Your task to perform on an android device: Search for seafood restaurants on Google Maps Image 0: 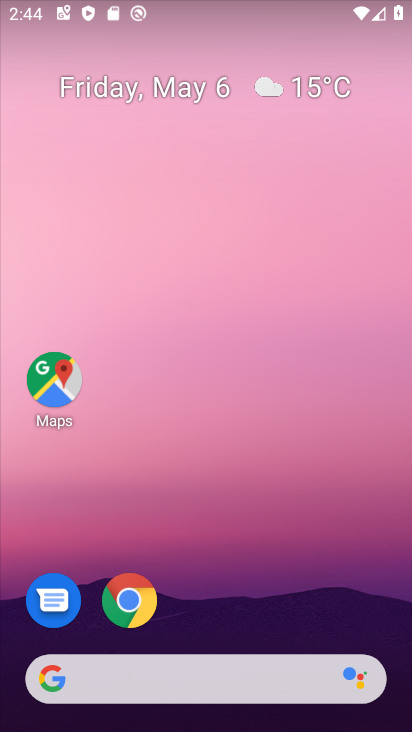
Step 0: drag from (274, 521) to (202, 15)
Your task to perform on an android device: Search for seafood restaurants on Google Maps Image 1: 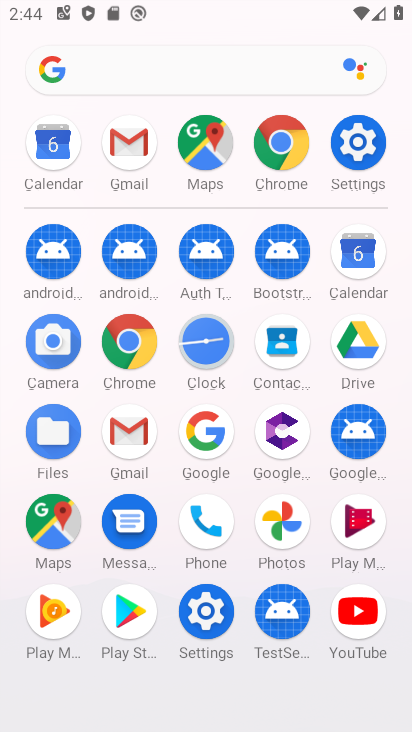
Step 1: drag from (5, 620) to (5, 249)
Your task to perform on an android device: Search for seafood restaurants on Google Maps Image 2: 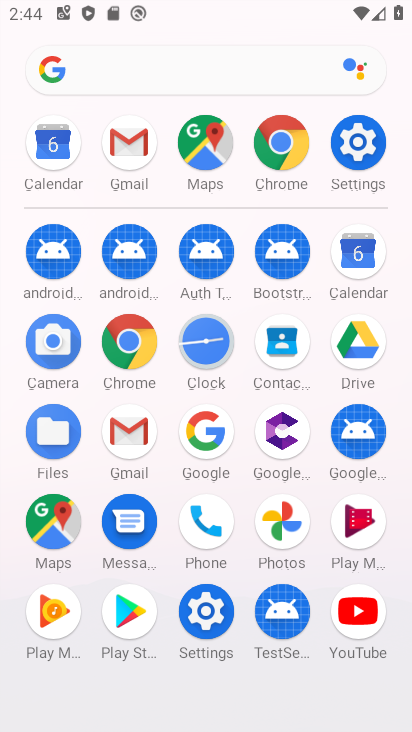
Step 2: click (49, 517)
Your task to perform on an android device: Search for seafood restaurants on Google Maps Image 3: 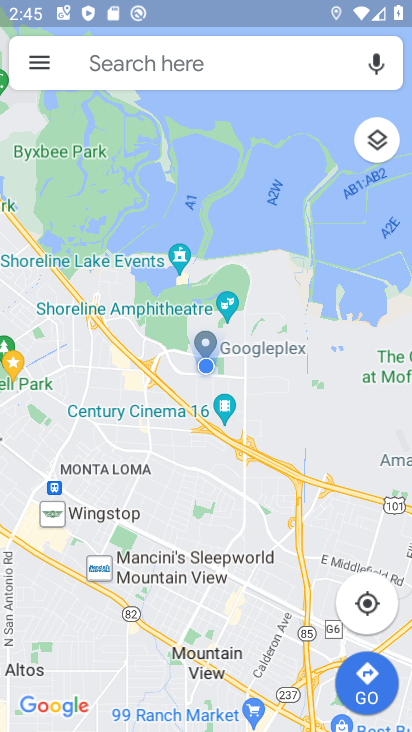
Step 3: click (214, 50)
Your task to perform on an android device: Search for seafood restaurants on Google Maps Image 4: 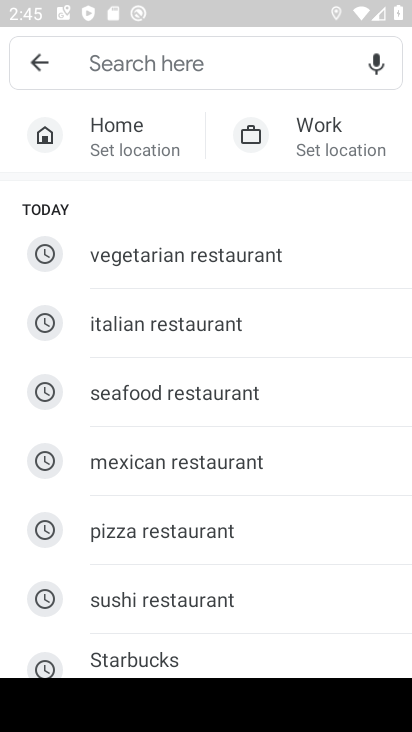
Step 4: type "seafood restaurants "
Your task to perform on an android device: Search for seafood restaurants on Google Maps Image 5: 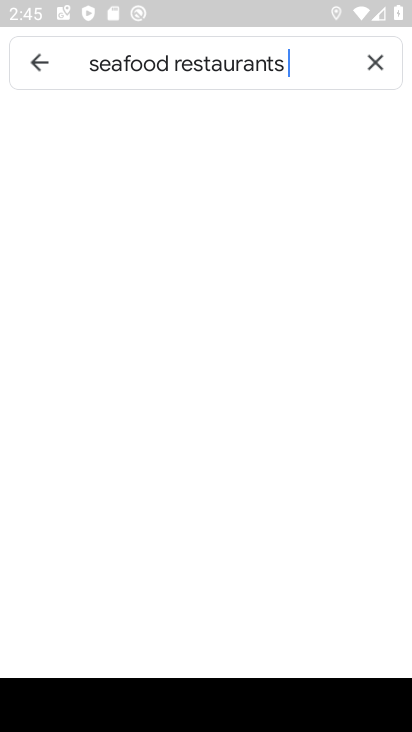
Step 5: type ""
Your task to perform on an android device: Search for seafood restaurants on Google Maps Image 6: 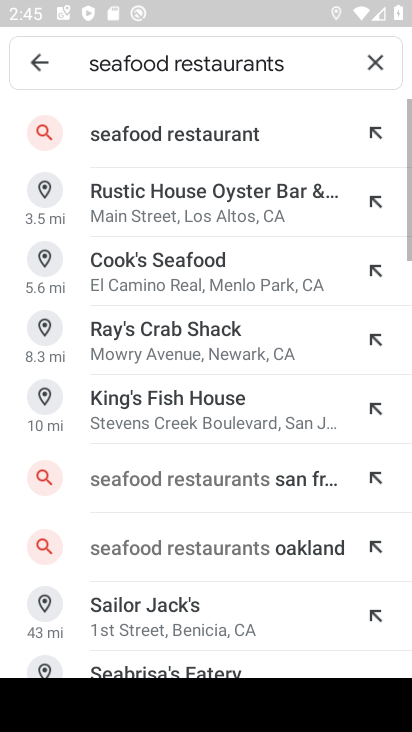
Step 6: click (221, 143)
Your task to perform on an android device: Search for seafood restaurants on Google Maps Image 7: 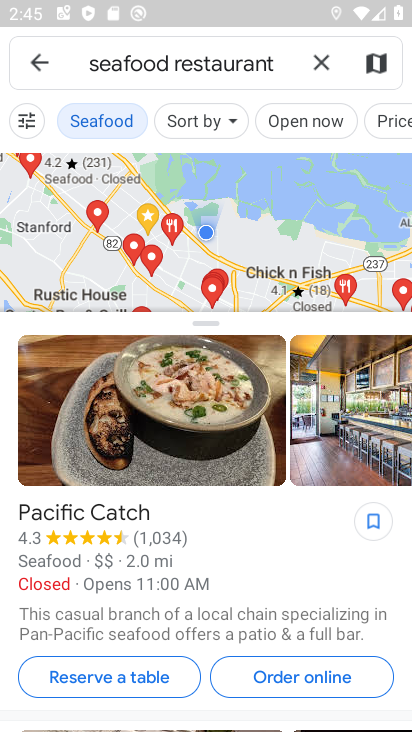
Step 7: task complete